Your task to perform on an android device: toggle data saver in the chrome app Image 0: 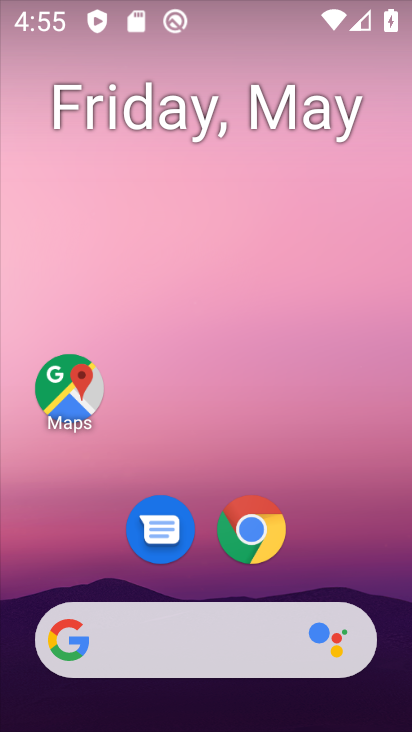
Step 0: click (248, 524)
Your task to perform on an android device: toggle data saver in the chrome app Image 1: 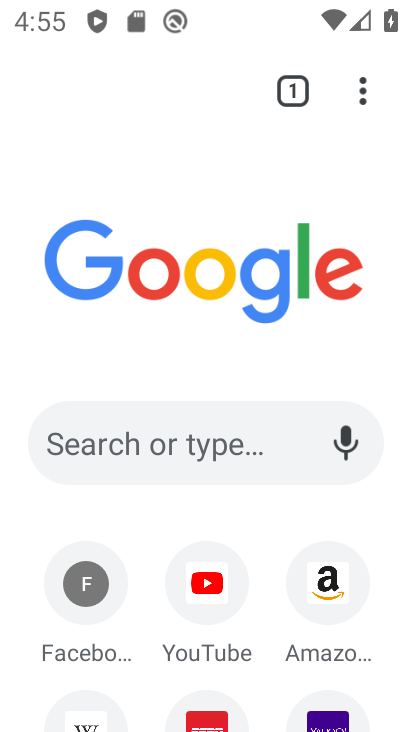
Step 1: click (352, 102)
Your task to perform on an android device: toggle data saver in the chrome app Image 2: 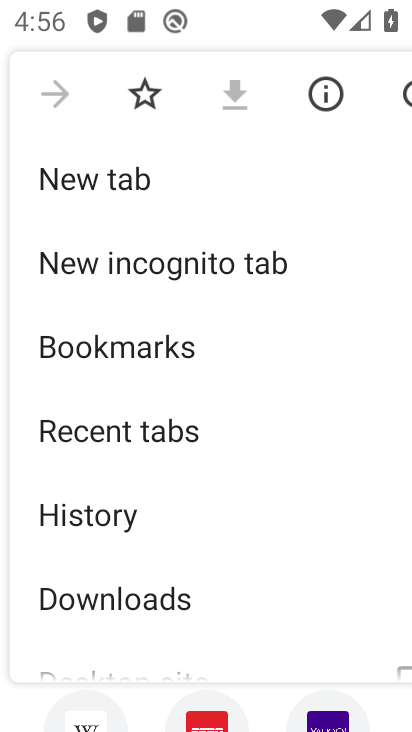
Step 2: drag from (212, 549) to (258, 175)
Your task to perform on an android device: toggle data saver in the chrome app Image 3: 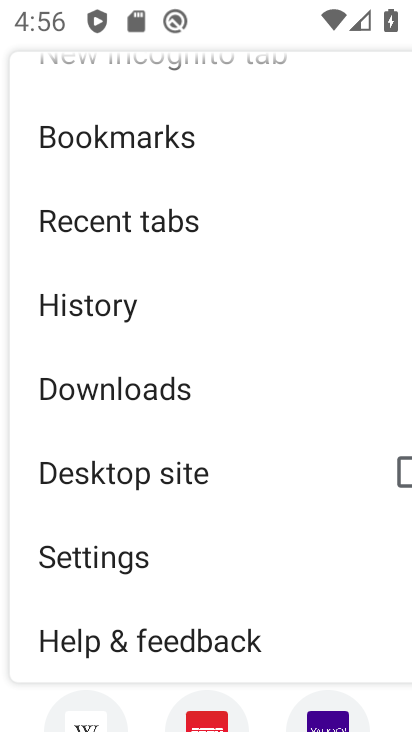
Step 3: click (120, 588)
Your task to perform on an android device: toggle data saver in the chrome app Image 4: 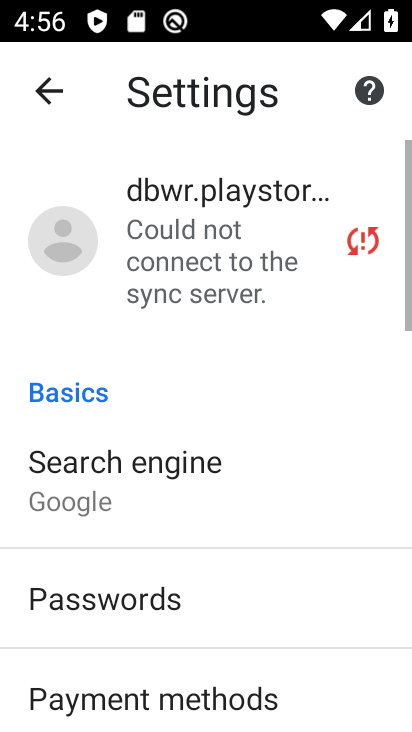
Step 4: drag from (120, 588) to (168, 277)
Your task to perform on an android device: toggle data saver in the chrome app Image 5: 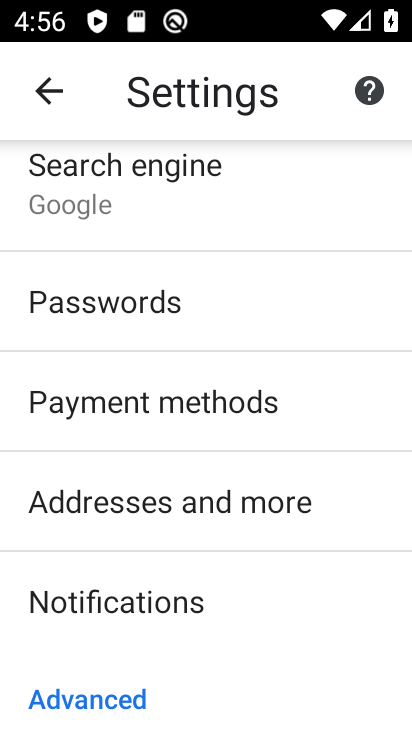
Step 5: drag from (168, 277) to (113, 554)
Your task to perform on an android device: toggle data saver in the chrome app Image 6: 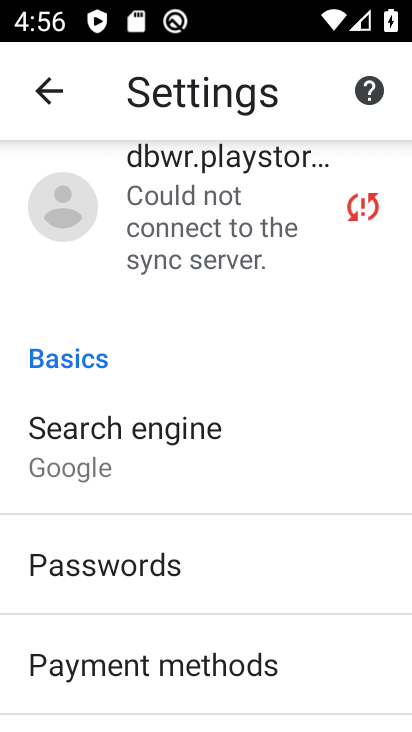
Step 6: drag from (113, 554) to (282, 148)
Your task to perform on an android device: toggle data saver in the chrome app Image 7: 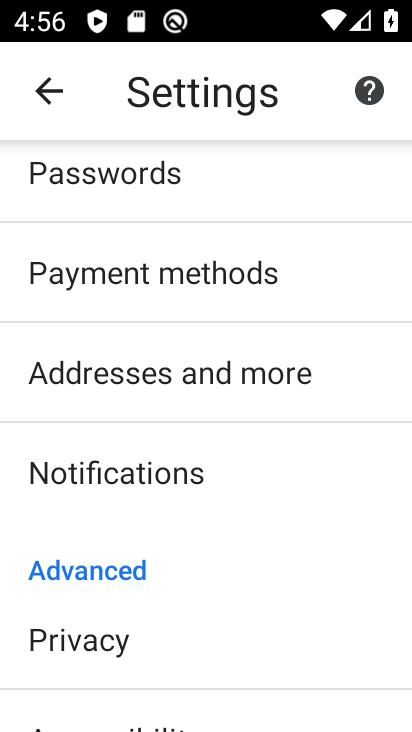
Step 7: drag from (113, 594) to (230, 250)
Your task to perform on an android device: toggle data saver in the chrome app Image 8: 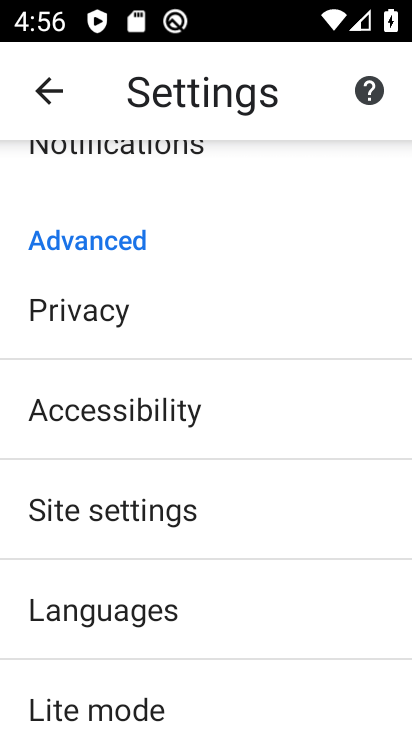
Step 8: drag from (174, 612) to (236, 281)
Your task to perform on an android device: toggle data saver in the chrome app Image 9: 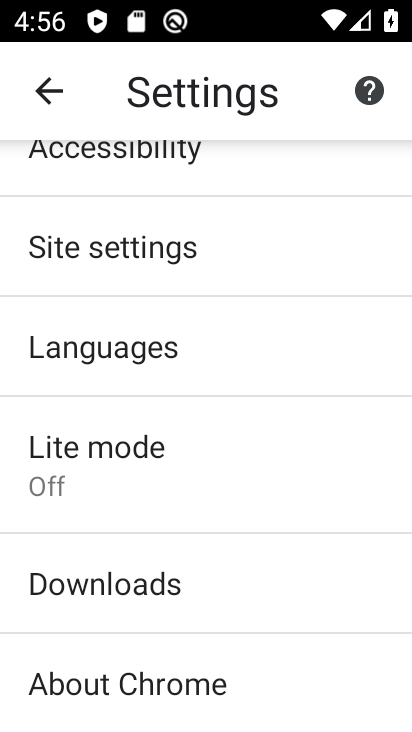
Step 9: click (179, 498)
Your task to perform on an android device: toggle data saver in the chrome app Image 10: 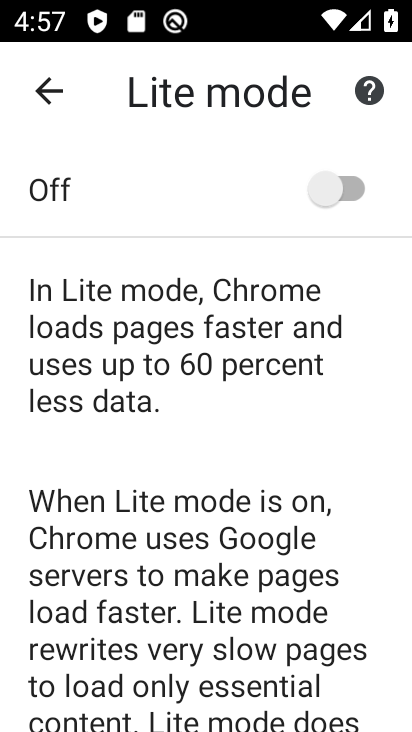
Step 10: click (370, 181)
Your task to perform on an android device: toggle data saver in the chrome app Image 11: 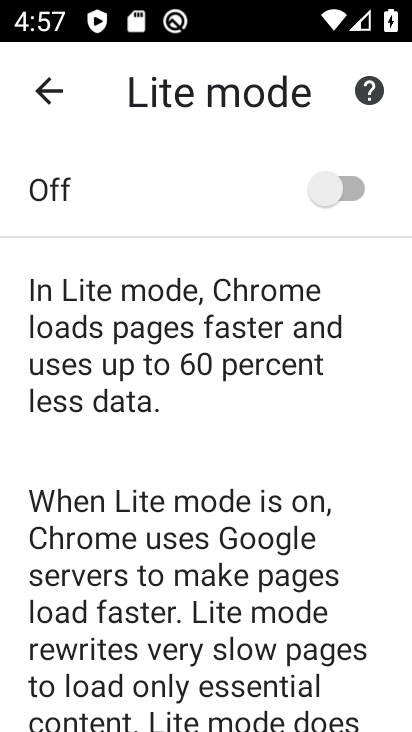
Step 11: click (370, 181)
Your task to perform on an android device: toggle data saver in the chrome app Image 12: 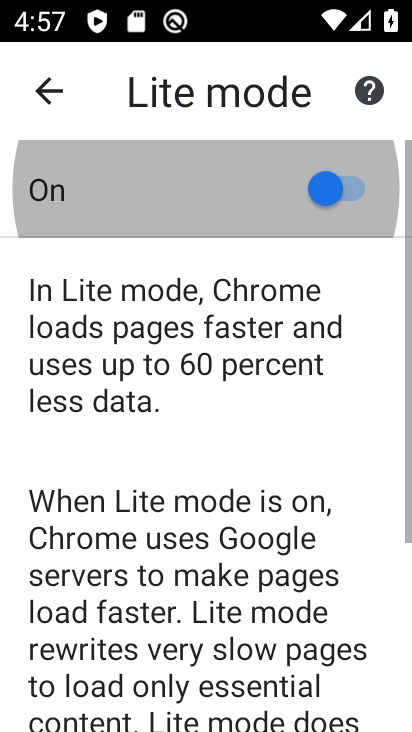
Step 12: click (370, 181)
Your task to perform on an android device: toggle data saver in the chrome app Image 13: 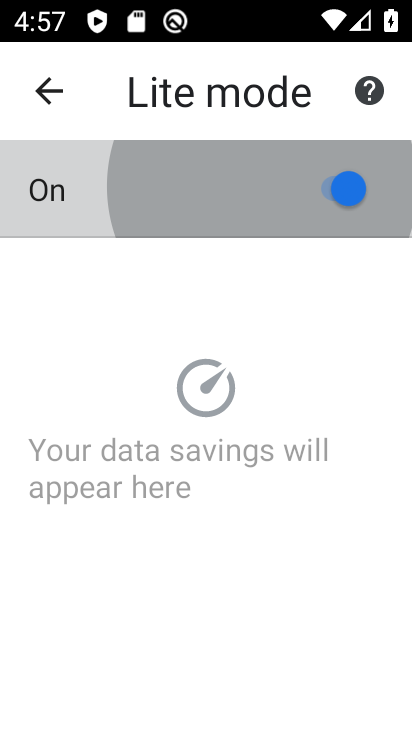
Step 13: click (370, 181)
Your task to perform on an android device: toggle data saver in the chrome app Image 14: 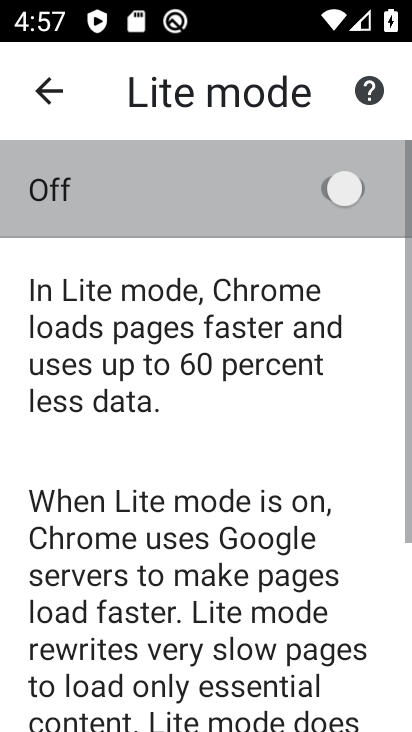
Step 14: click (370, 181)
Your task to perform on an android device: toggle data saver in the chrome app Image 15: 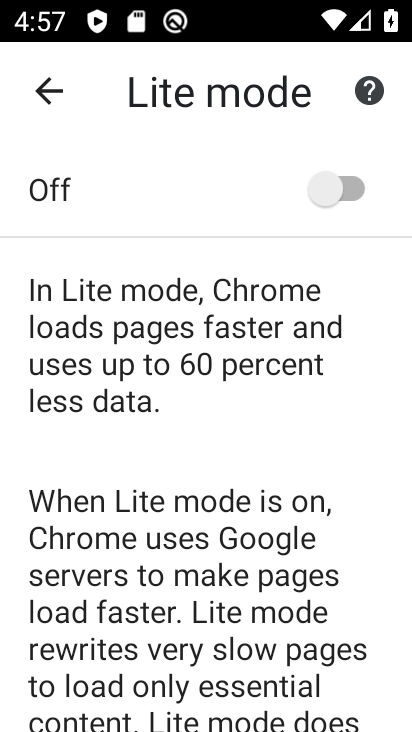
Step 15: task complete